Your task to perform on an android device: toggle notification dots Image 0: 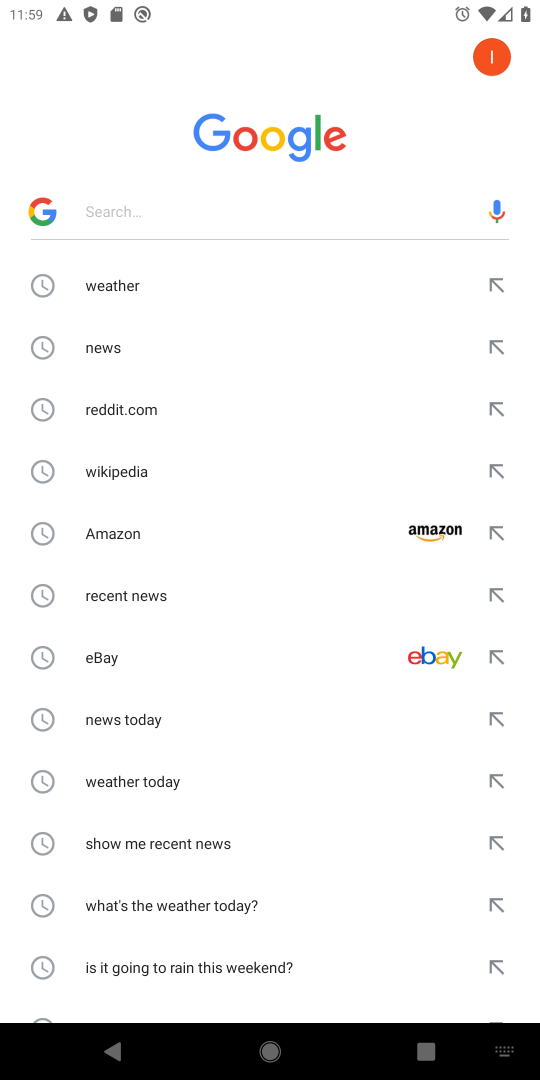
Step 0: press back button
Your task to perform on an android device: toggle notification dots Image 1: 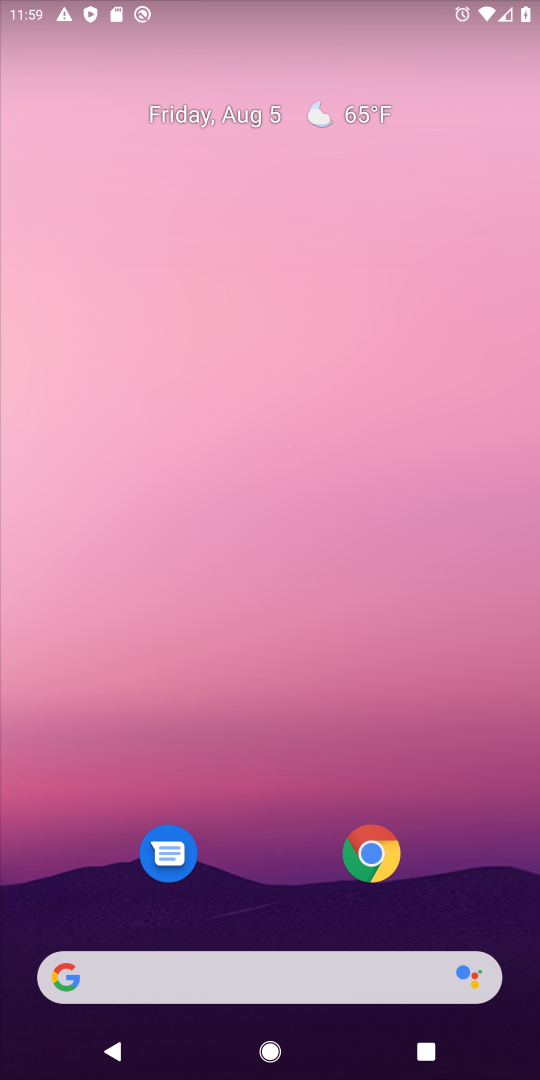
Step 1: drag from (262, 969) to (202, 144)
Your task to perform on an android device: toggle notification dots Image 2: 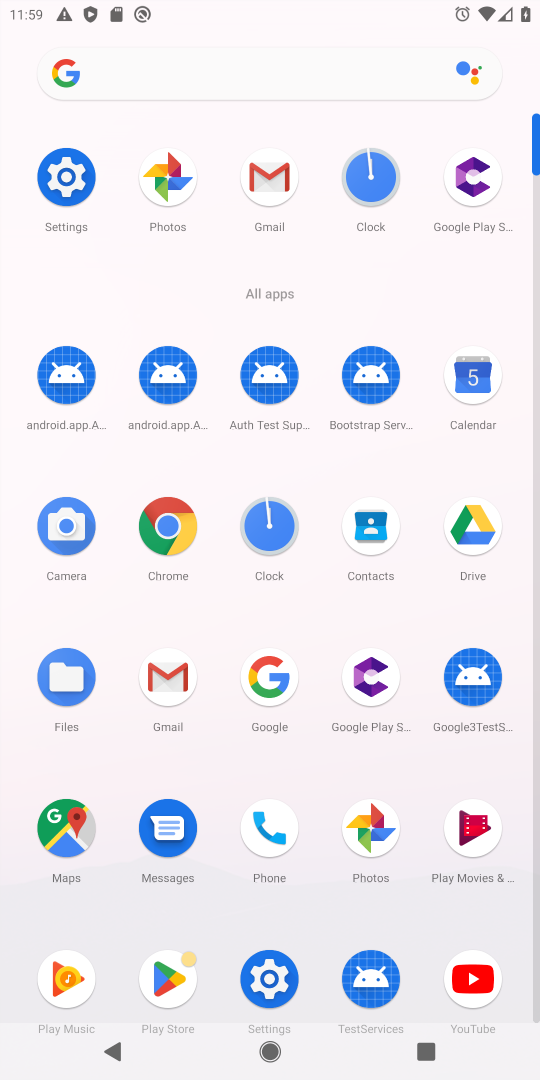
Step 2: click (61, 198)
Your task to perform on an android device: toggle notification dots Image 3: 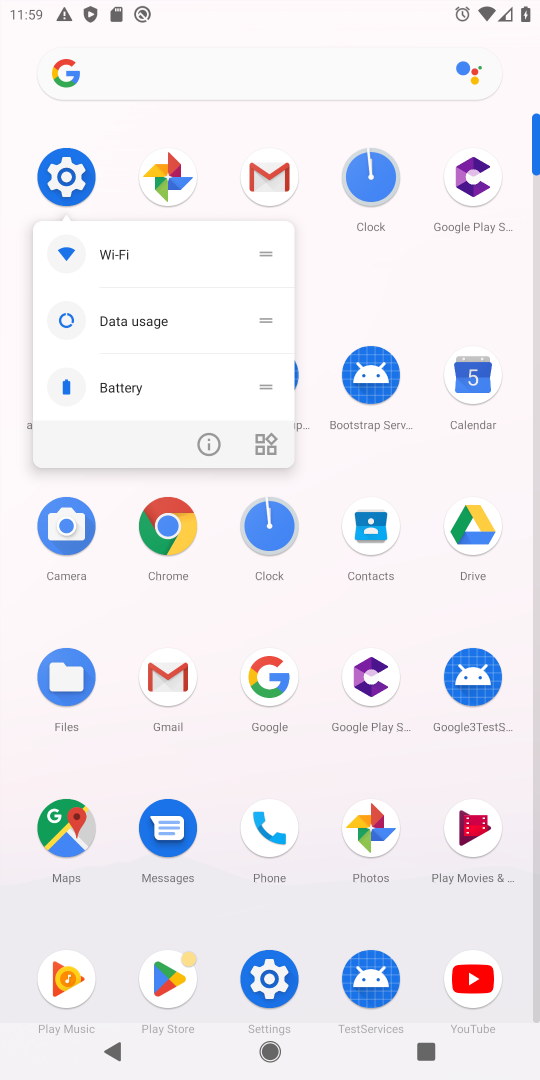
Step 3: click (68, 165)
Your task to perform on an android device: toggle notification dots Image 4: 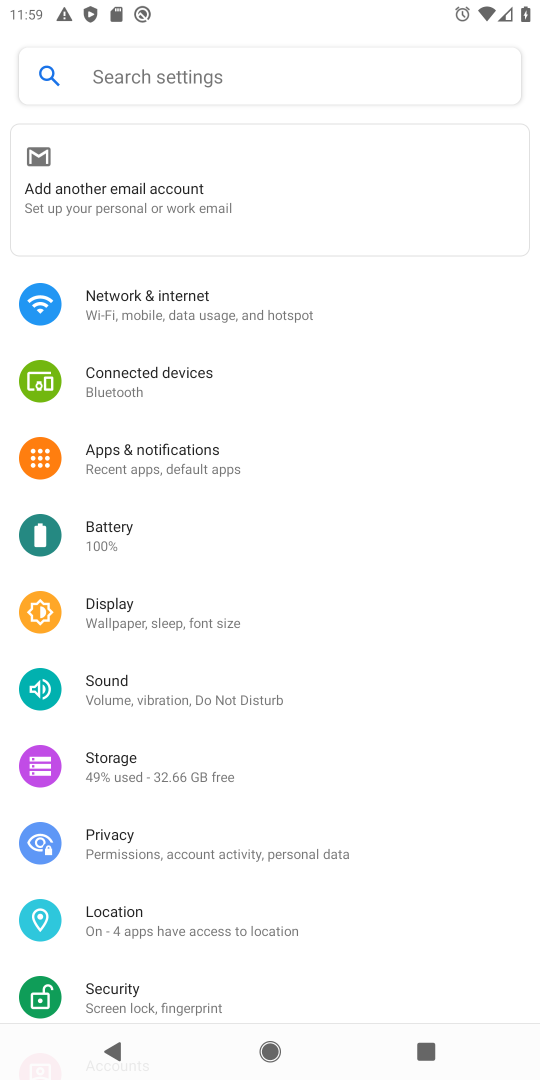
Step 4: click (200, 478)
Your task to perform on an android device: toggle notification dots Image 5: 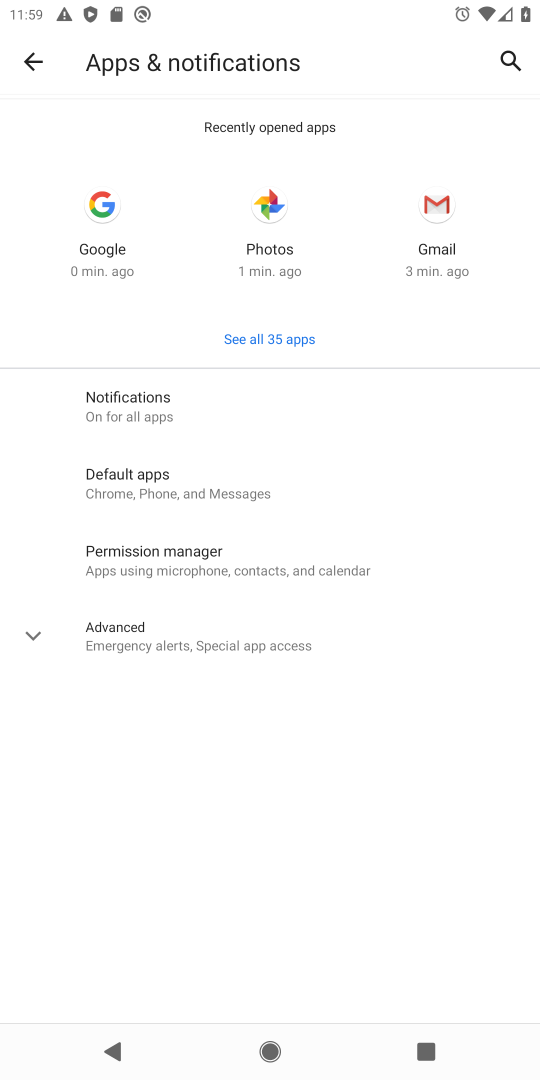
Step 5: click (136, 431)
Your task to perform on an android device: toggle notification dots Image 6: 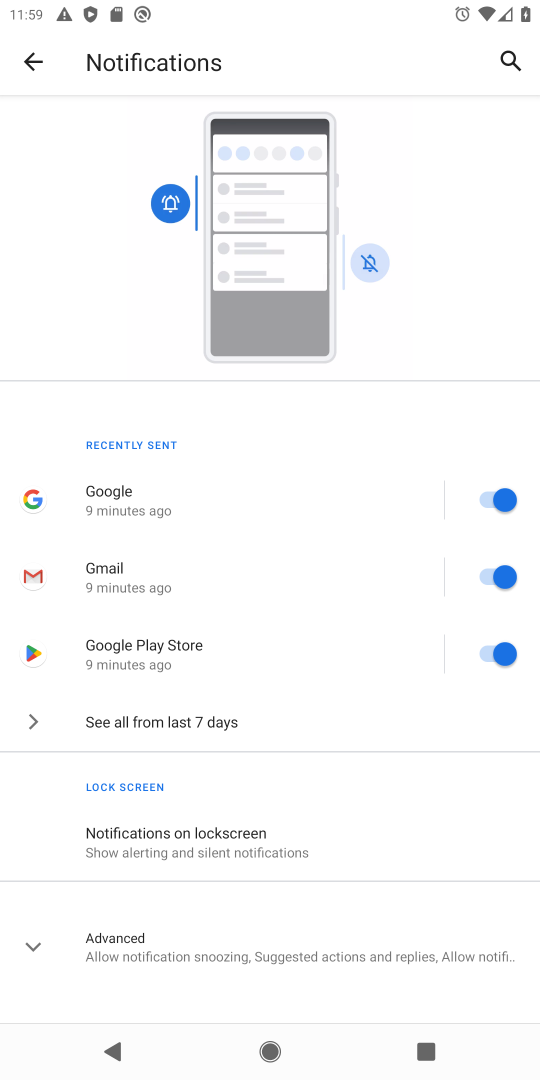
Step 6: click (232, 953)
Your task to perform on an android device: toggle notification dots Image 7: 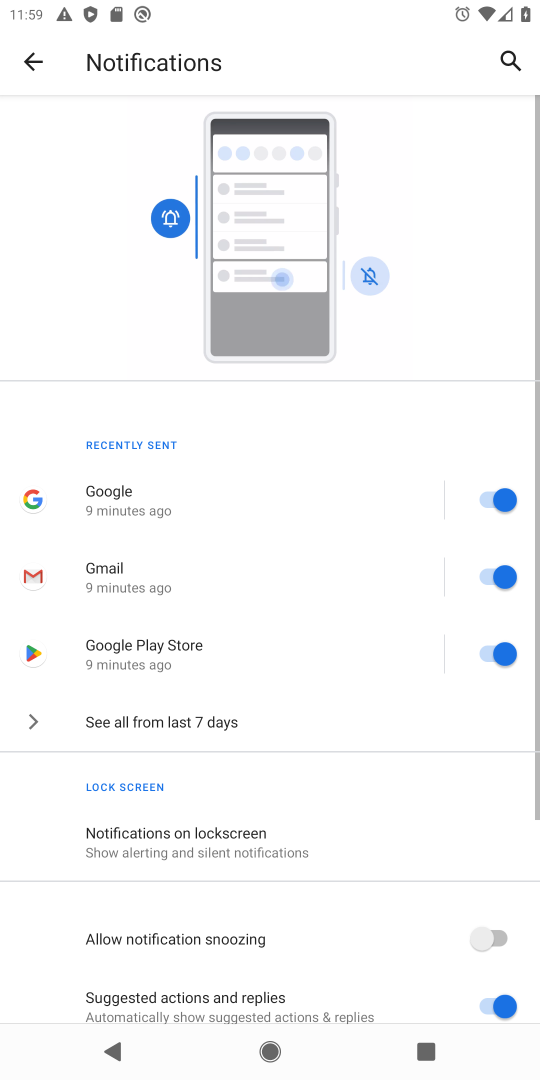
Step 7: drag from (306, 882) to (248, 294)
Your task to perform on an android device: toggle notification dots Image 8: 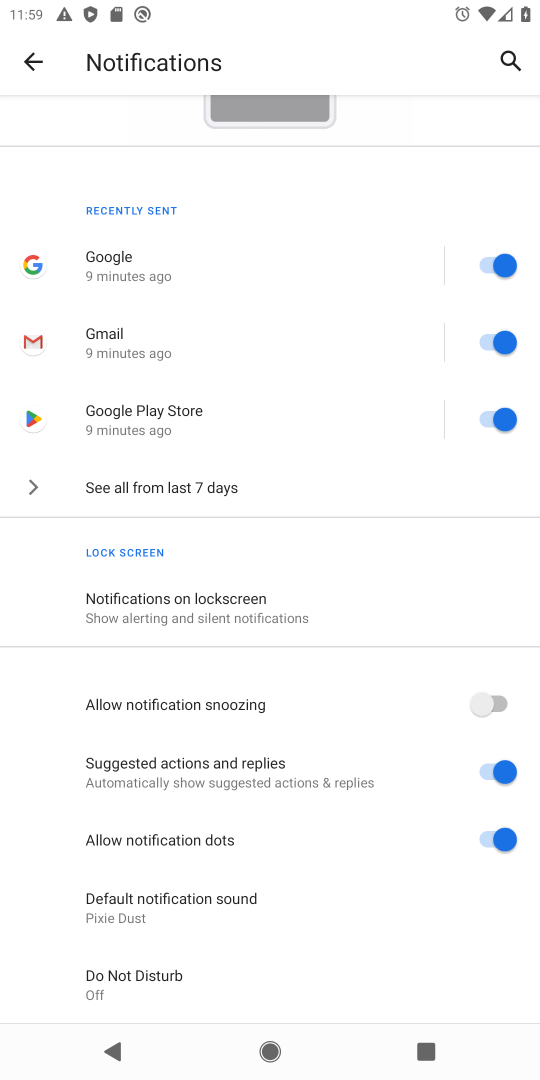
Step 8: click (482, 837)
Your task to perform on an android device: toggle notification dots Image 9: 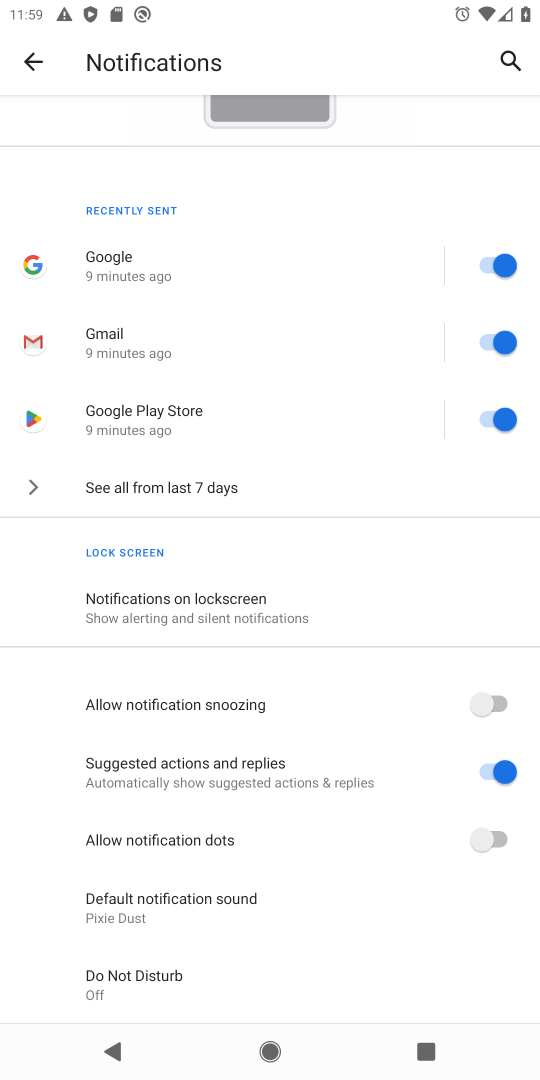
Step 9: task complete